Your task to perform on an android device: Go to accessibility settings Image 0: 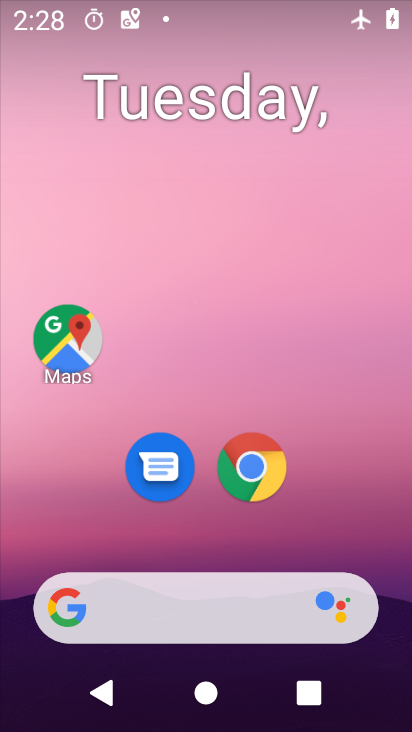
Step 0: drag from (375, 547) to (373, 180)
Your task to perform on an android device: Go to accessibility settings Image 1: 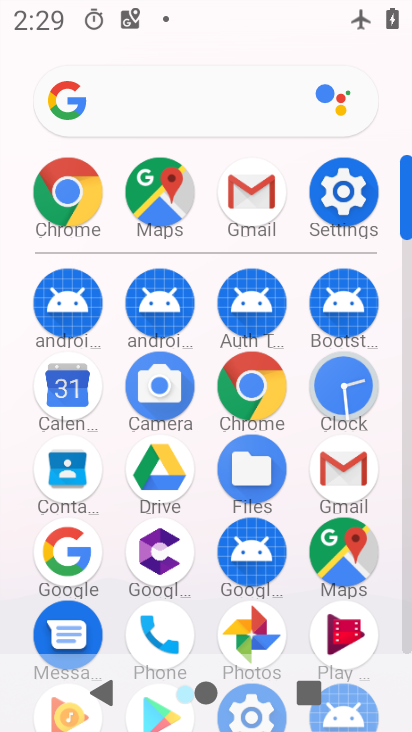
Step 1: click (357, 215)
Your task to perform on an android device: Go to accessibility settings Image 2: 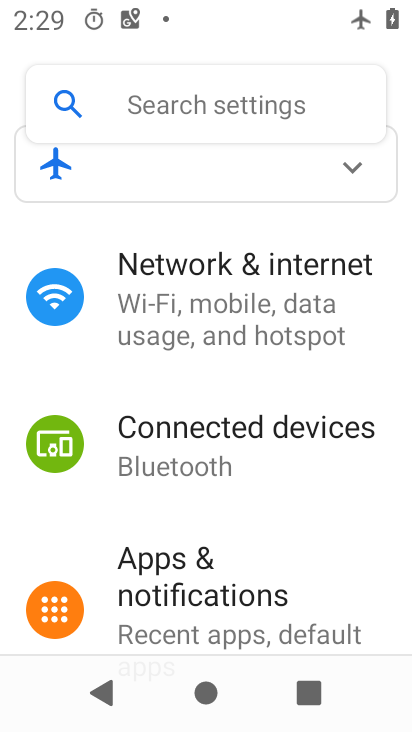
Step 2: drag from (344, 504) to (359, 256)
Your task to perform on an android device: Go to accessibility settings Image 3: 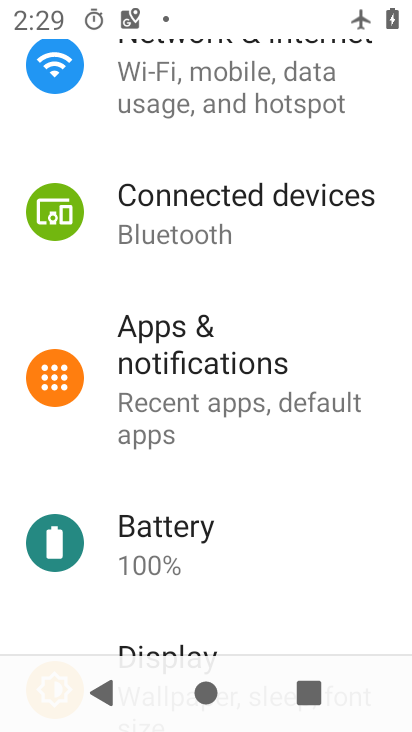
Step 3: drag from (358, 529) to (350, 346)
Your task to perform on an android device: Go to accessibility settings Image 4: 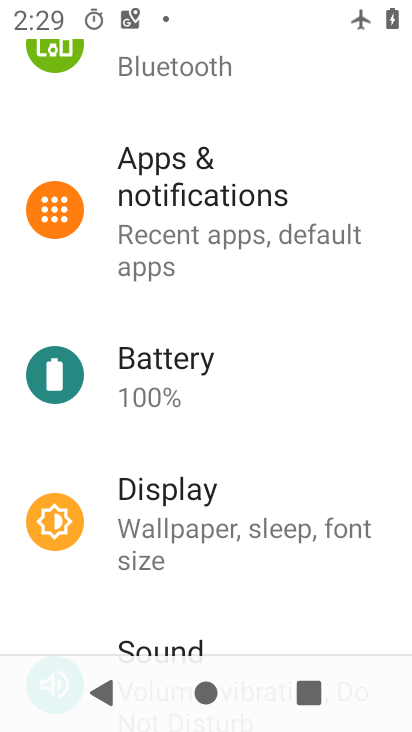
Step 4: drag from (326, 588) to (339, 386)
Your task to perform on an android device: Go to accessibility settings Image 5: 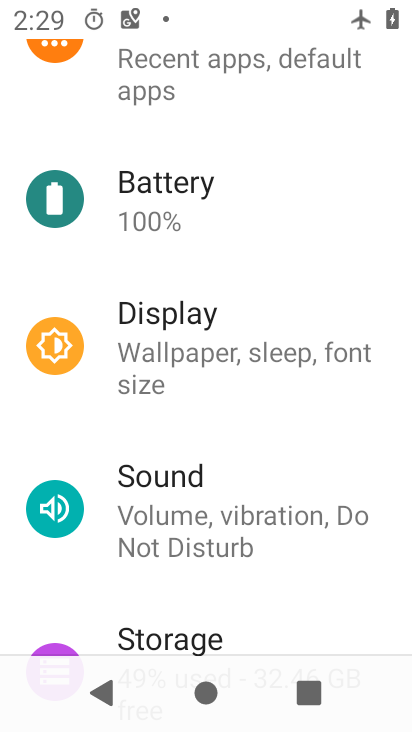
Step 5: drag from (332, 586) to (333, 422)
Your task to perform on an android device: Go to accessibility settings Image 6: 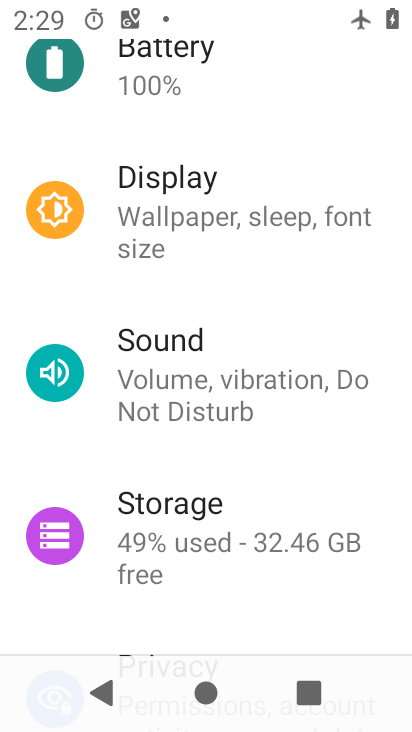
Step 6: drag from (368, 594) to (365, 405)
Your task to perform on an android device: Go to accessibility settings Image 7: 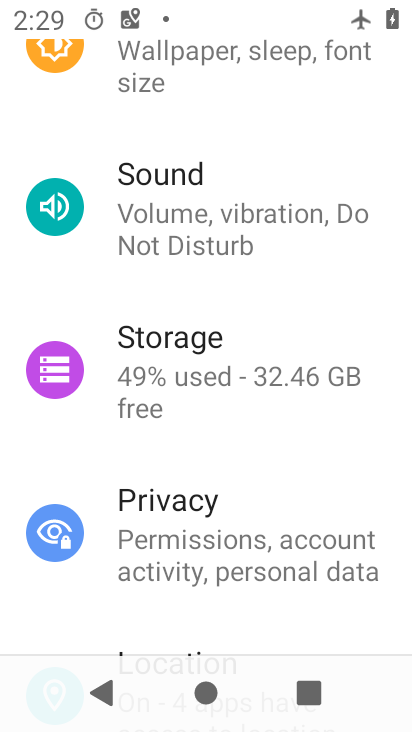
Step 7: drag from (367, 604) to (374, 410)
Your task to perform on an android device: Go to accessibility settings Image 8: 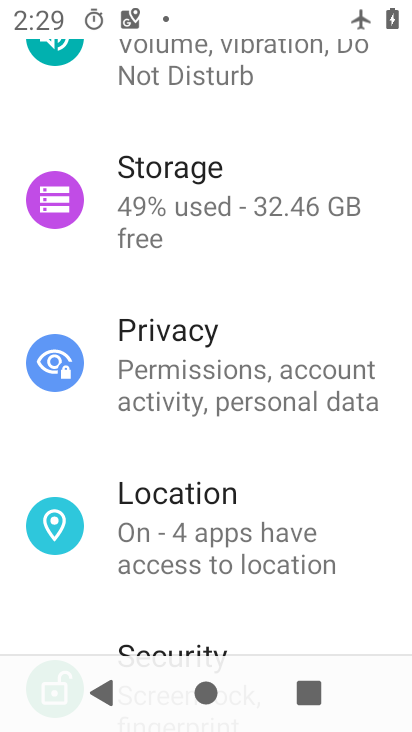
Step 8: drag from (375, 599) to (363, 440)
Your task to perform on an android device: Go to accessibility settings Image 9: 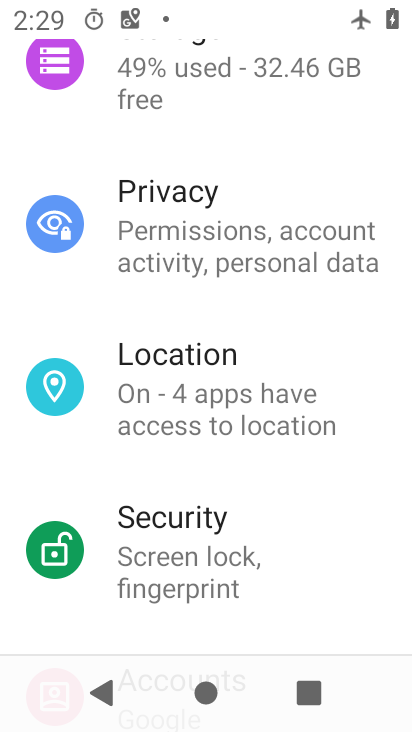
Step 9: drag from (366, 582) to (366, 438)
Your task to perform on an android device: Go to accessibility settings Image 10: 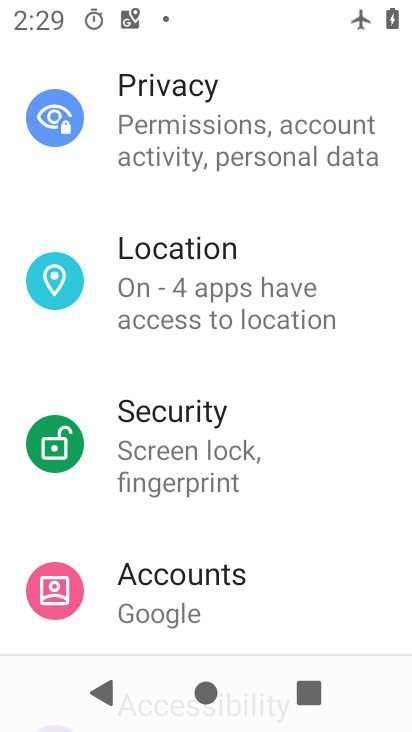
Step 10: drag from (351, 544) to (350, 401)
Your task to perform on an android device: Go to accessibility settings Image 11: 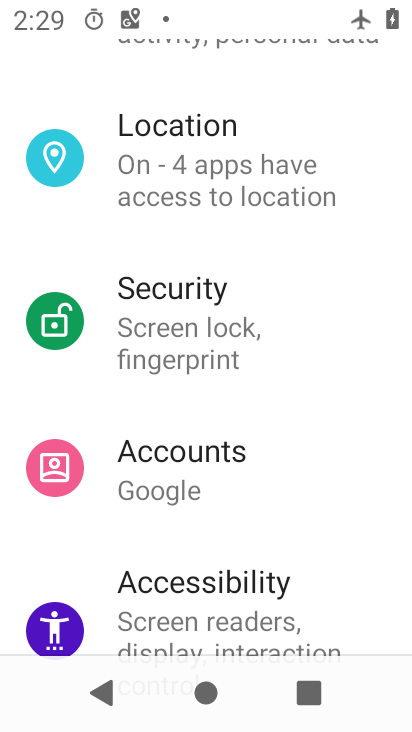
Step 11: drag from (359, 527) to (360, 209)
Your task to perform on an android device: Go to accessibility settings Image 12: 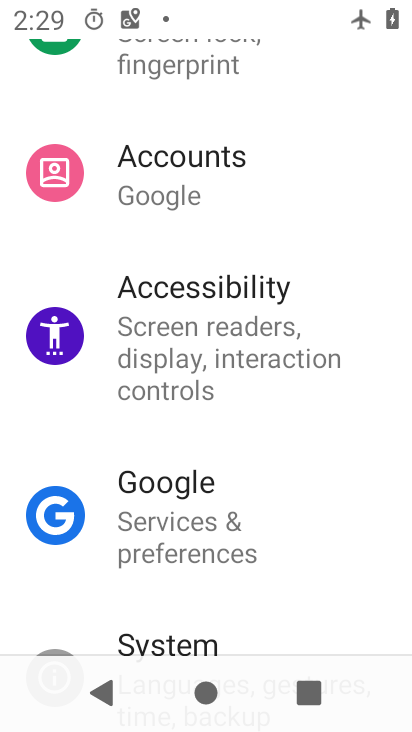
Step 12: click (269, 346)
Your task to perform on an android device: Go to accessibility settings Image 13: 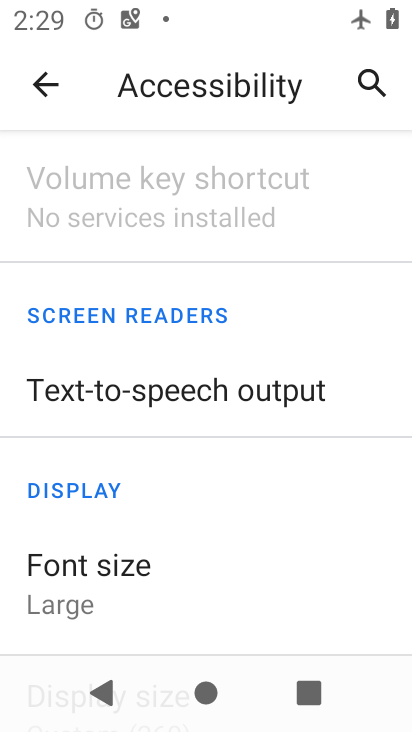
Step 13: task complete